Your task to perform on an android device: change notification settings in the gmail app Image 0: 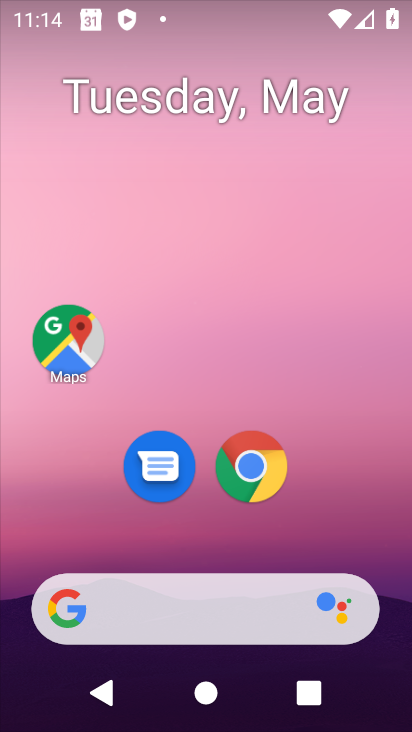
Step 0: drag from (235, 495) to (305, 2)
Your task to perform on an android device: change notification settings in the gmail app Image 1: 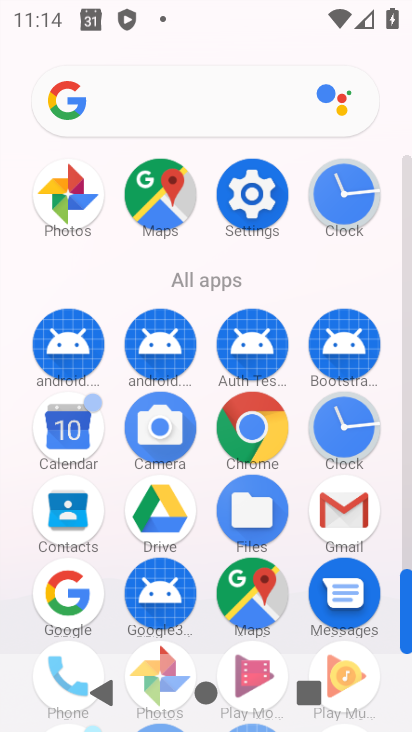
Step 1: click (342, 509)
Your task to perform on an android device: change notification settings in the gmail app Image 2: 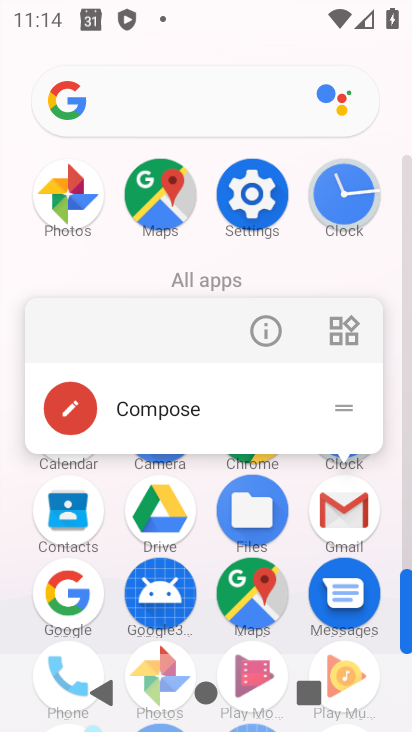
Step 2: click (262, 335)
Your task to perform on an android device: change notification settings in the gmail app Image 3: 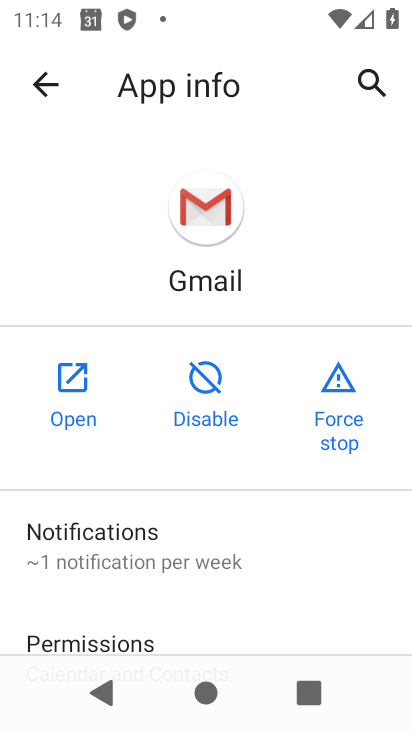
Step 3: click (119, 552)
Your task to perform on an android device: change notification settings in the gmail app Image 4: 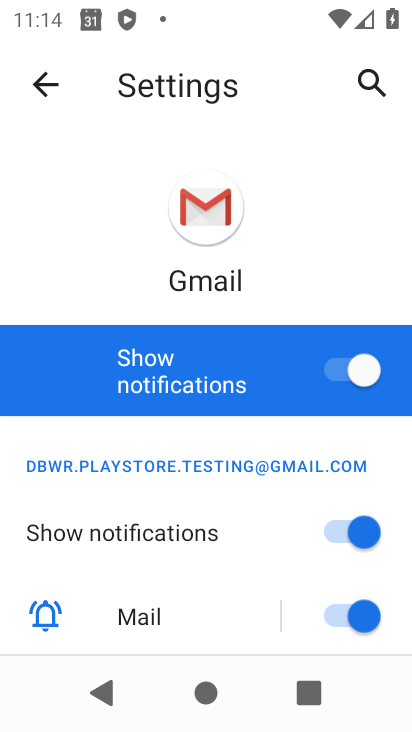
Step 4: click (339, 528)
Your task to perform on an android device: change notification settings in the gmail app Image 5: 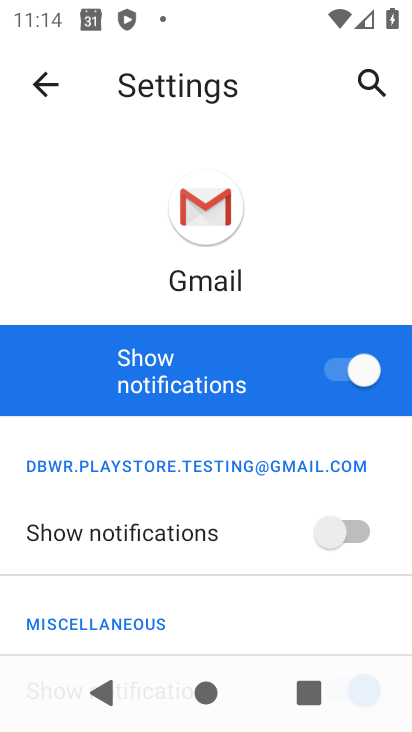
Step 5: task complete